Your task to perform on an android device: Go to accessibility settings Image 0: 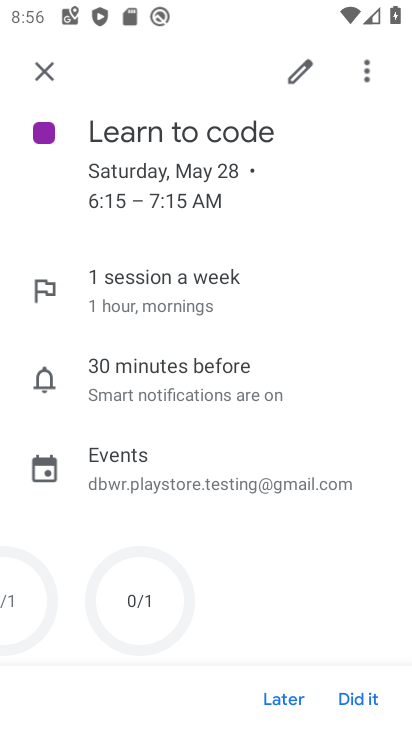
Step 0: press home button
Your task to perform on an android device: Go to accessibility settings Image 1: 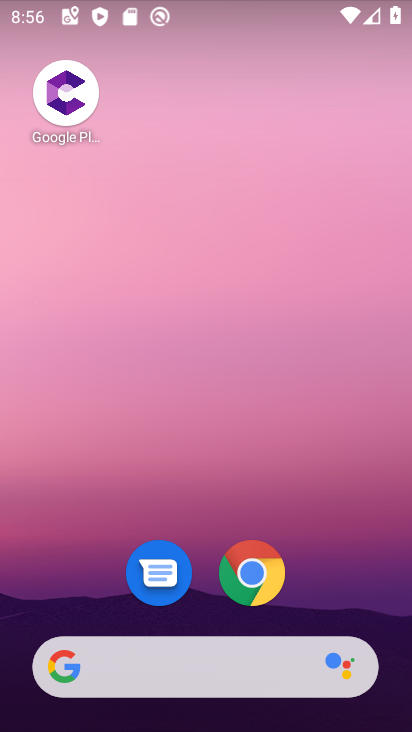
Step 1: drag from (363, 567) to (366, 266)
Your task to perform on an android device: Go to accessibility settings Image 2: 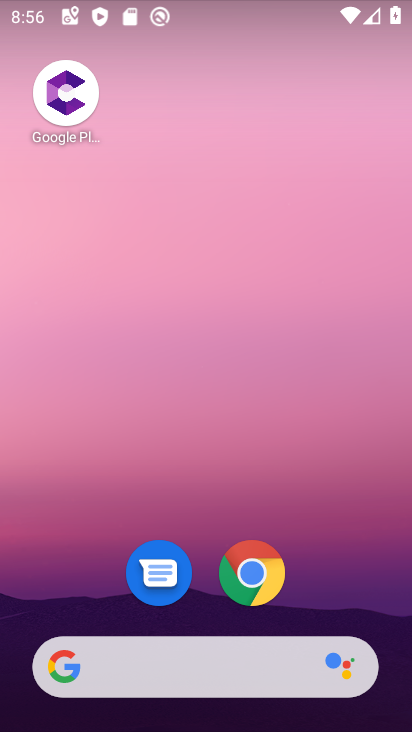
Step 2: drag from (376, 600) to (398, 245)
Your task to perform on an android device: Go to accessibility settings Image 3: 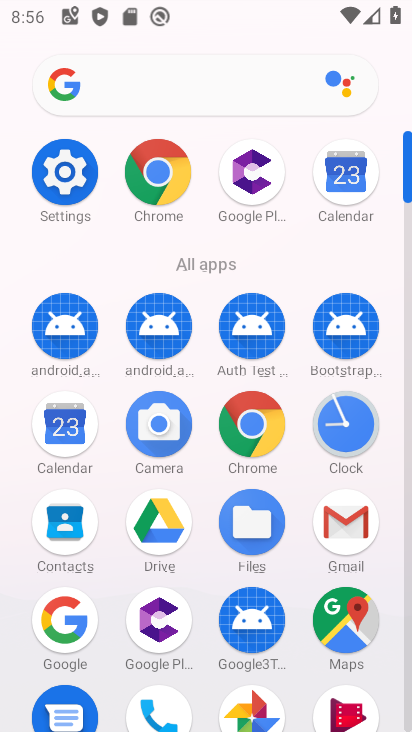
Step 3: click (53, 184)
Your task to perform on an android device: Go to accessibility settings Image 4: 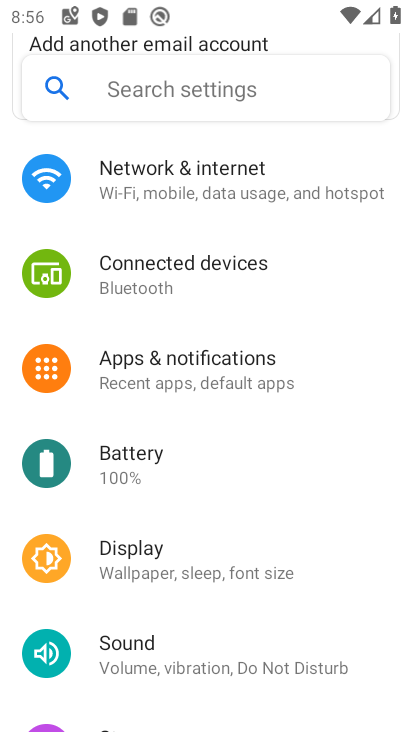
Step 4: drag from (311, 424) to (314, 315)
Your task to perform on an android device: Go to accessibility settings Image 5: 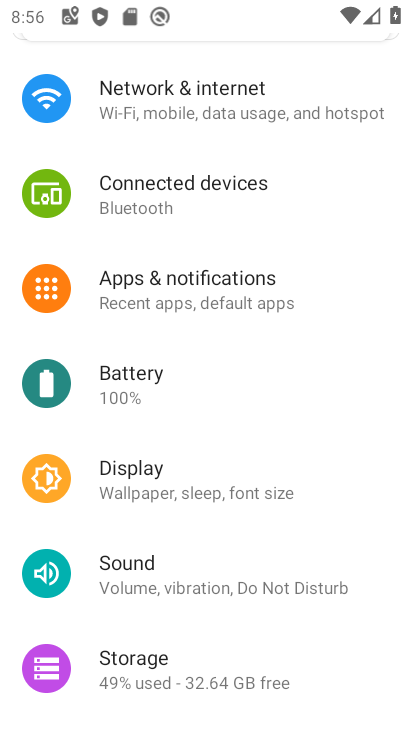
Step 5: drag from (350, 409) to (354, 251)
Your task to perform on an android device: Go to accessibility settings Image 6: 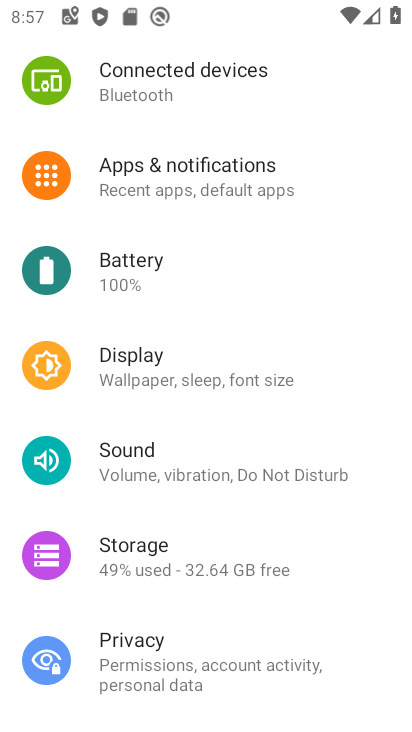
Step 6: drag from (328, 425) to (339, 313)
Your task to perform on an android device: Go to accessibility settings Image 7: 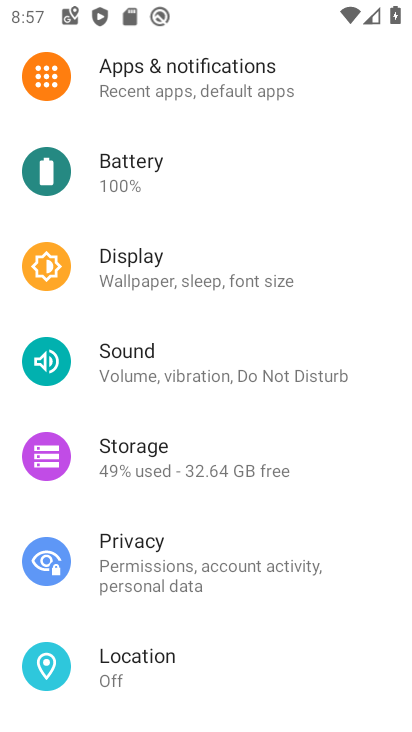
Step 7: drag from (334, 488) to (333, 315)
Your task to perform on an android device: Go to accessibility settings Image 8: 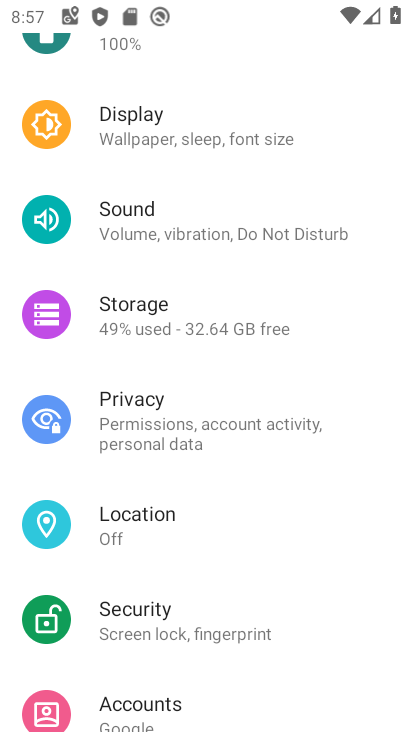
Step 8: drag from (336, 463) to (337, 334)
Your task to perform on an android device: Go to accessibility settings Image 9: 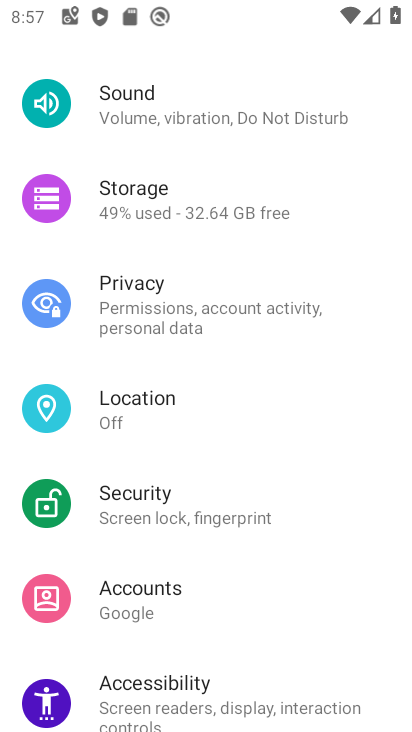
Step 9: drag from (332, 468) to (321, 352)
Your task to perform on an android device: Go to accessibility settings Image 10: 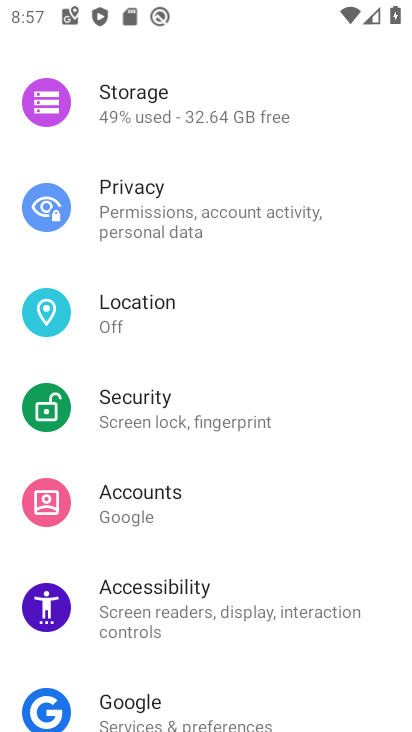
Step 10: drag from (332, 454) to (324, 330)
Your task to perform on an android device: Go to accessibility settings Image 11: 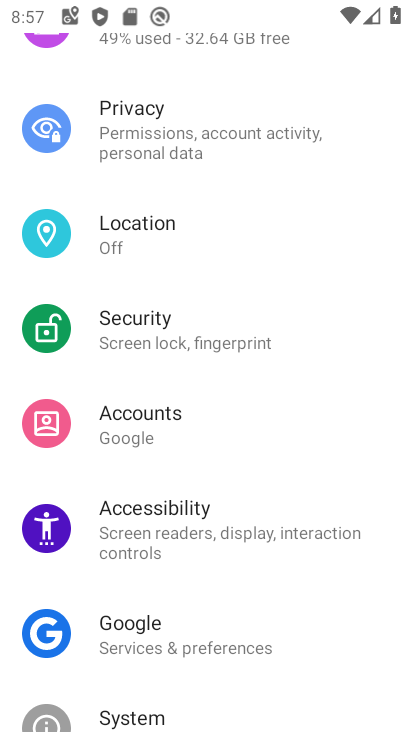
Step 11: drag from (296, 476) to (303, 303)
Your task to perform on an android device: Go to accessibility settings Image 12: 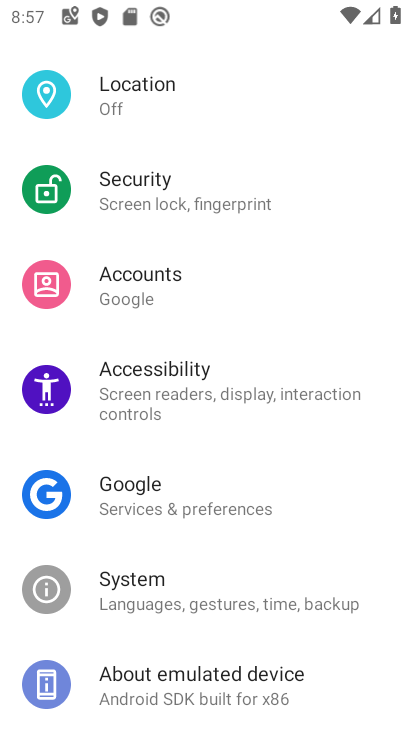
Step 12: click (294, 383)
Your task to perform on an android device: Go to accessibility settings Image 13: 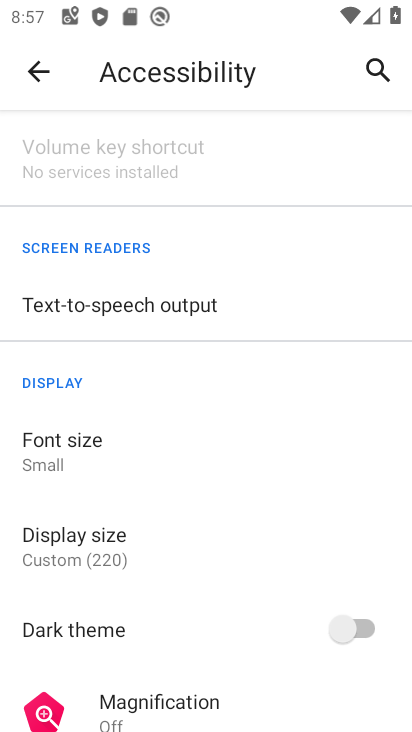
Step 13: task complete